Your task to perform on an android device: turn off location Image 0: 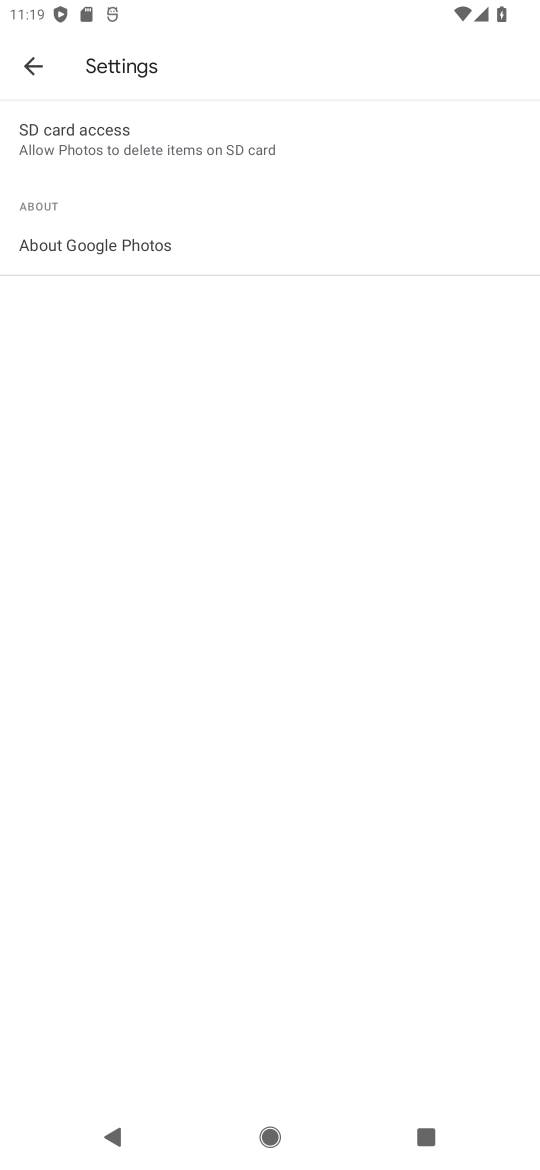
Step 0: press home button
Your task to perform on an android device: turn off location Image 1: 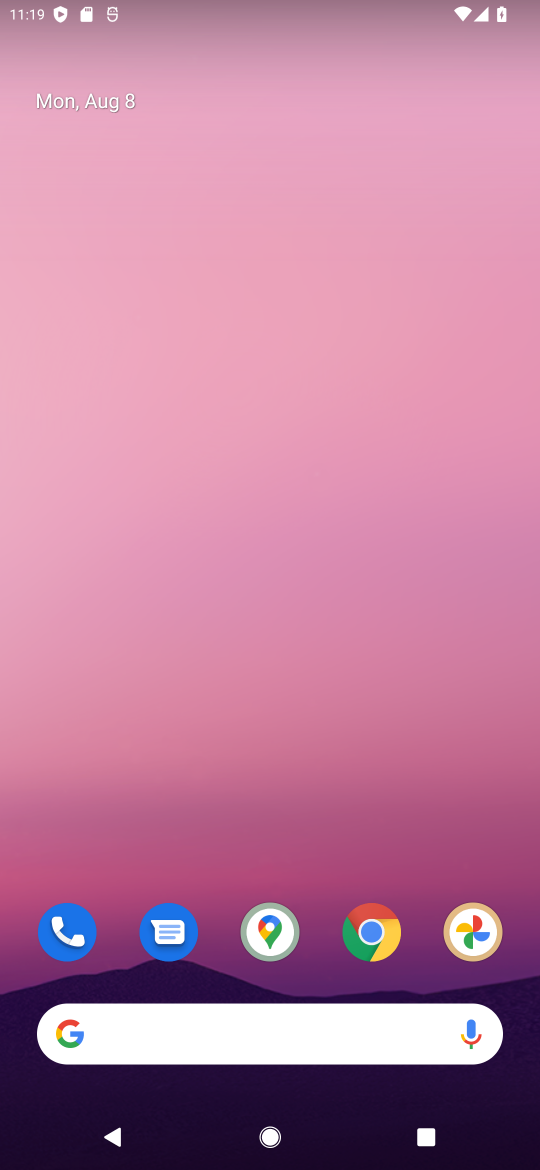
Step 1: drag from (280, 842) to (233, 121)
Your task to perform on an android device: turn off location Image 2: 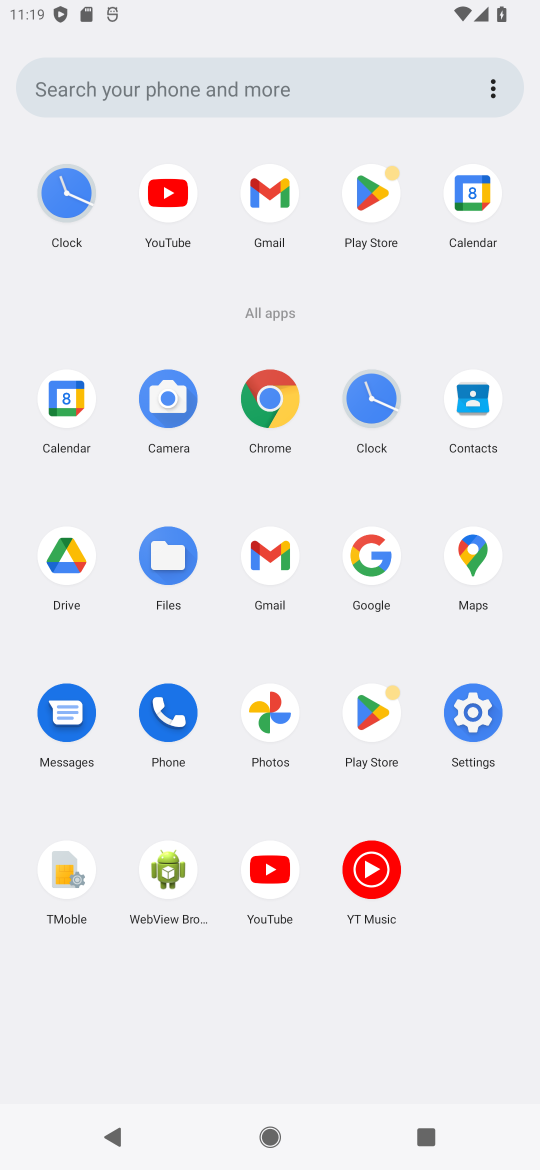
Step 2: click (482, 714)
Your task to perform on an android device: turn off location Image 3: 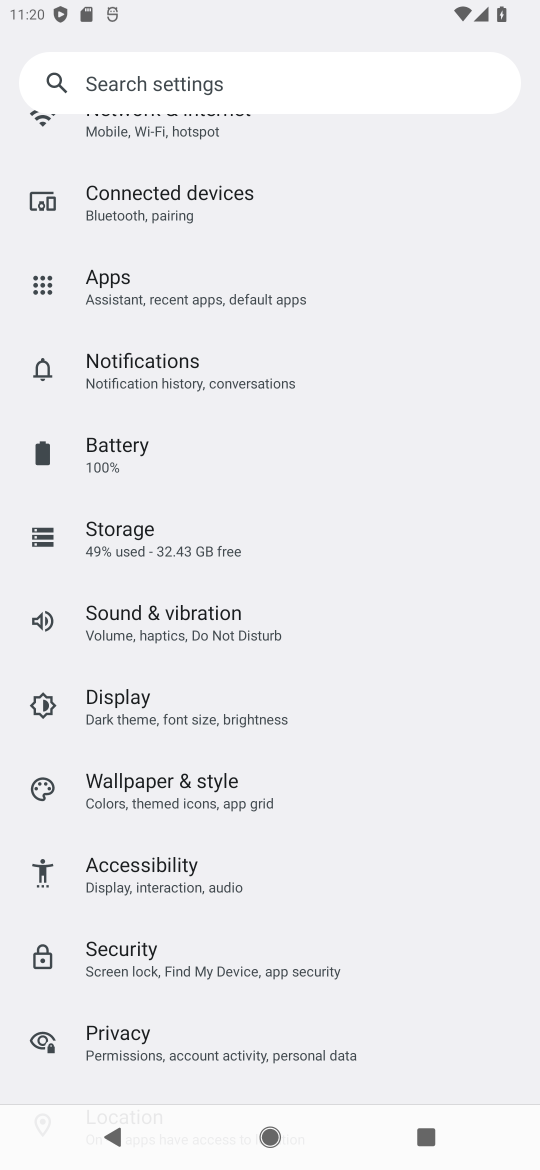
Step 3: drag from (301, 283) to (276, 634)
Your task to perform on an android device: turn off location Image 4: 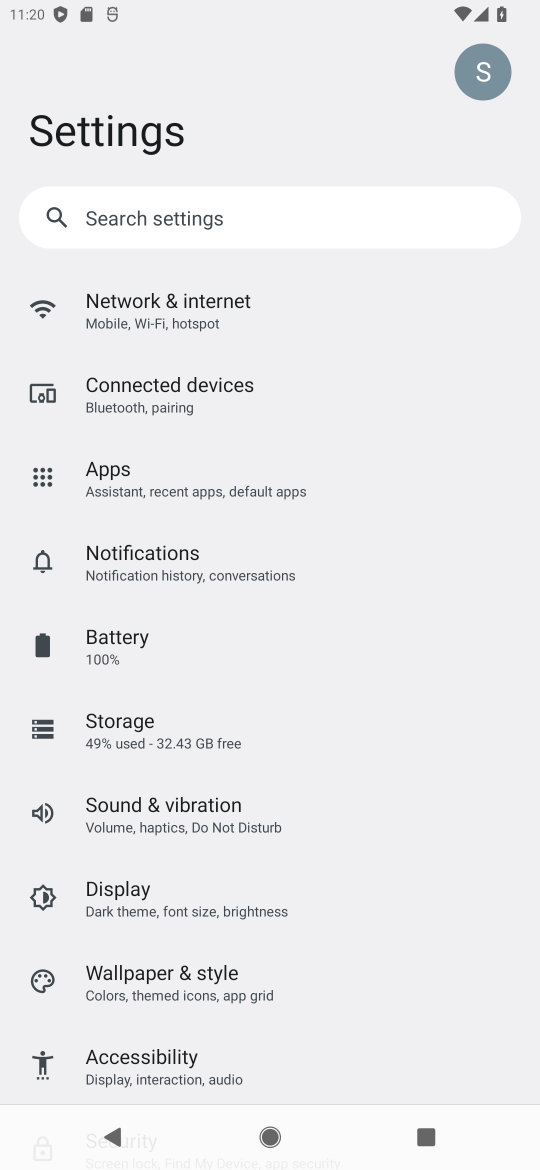
Step 4: drag from (127, 1037) to (235, 523)
Your task to perform on an android device: turn off location Image 5: 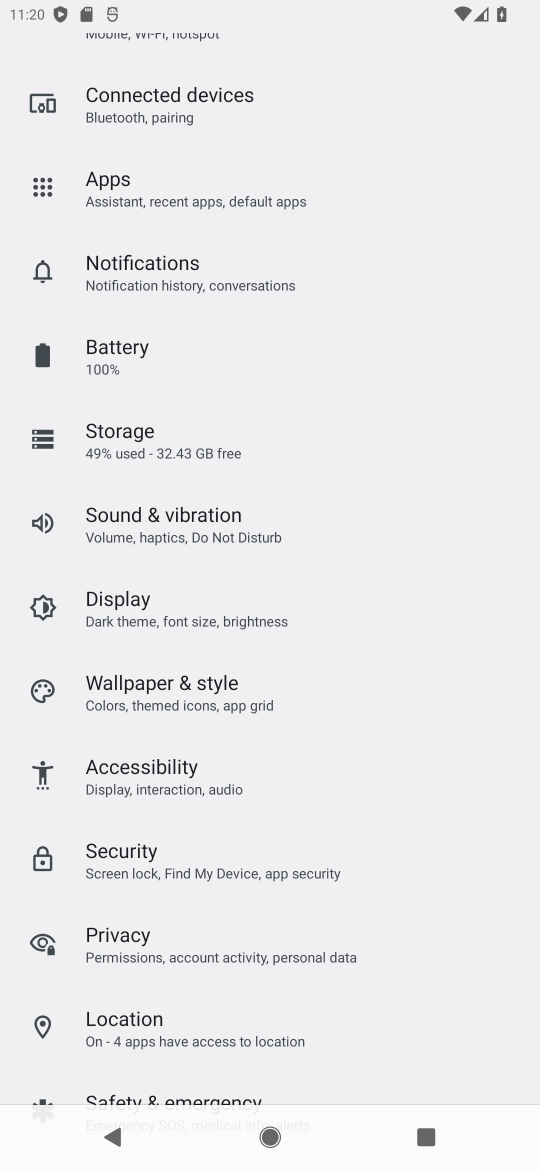
Step 5: click (111, 1044)
Your task to perform on an android device: turn off location Image 6: 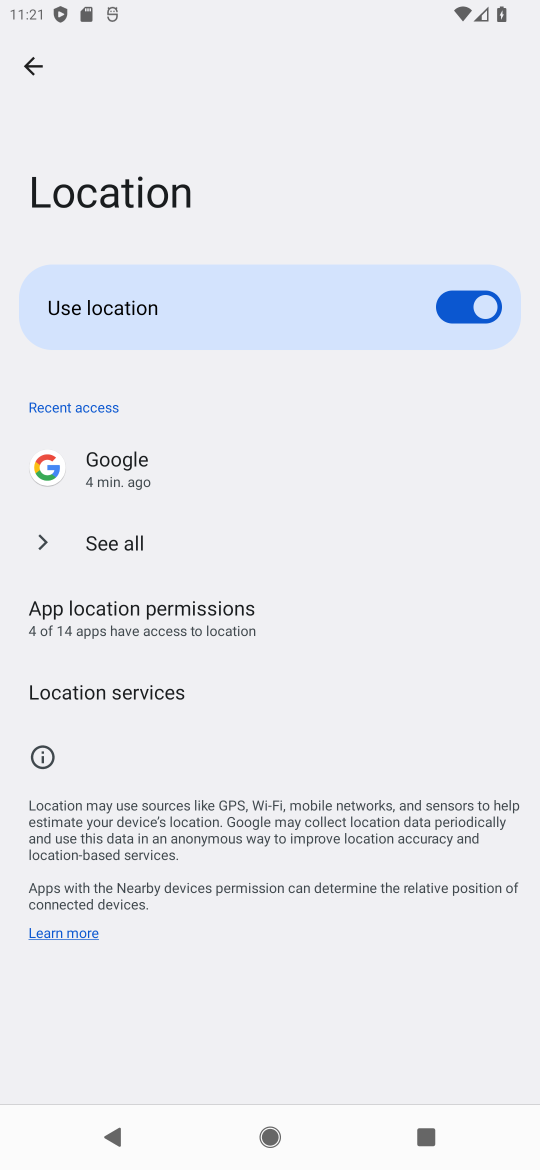
Step 6: click (442, 306)
Your task to perform on an android device: turn off location Image 7: 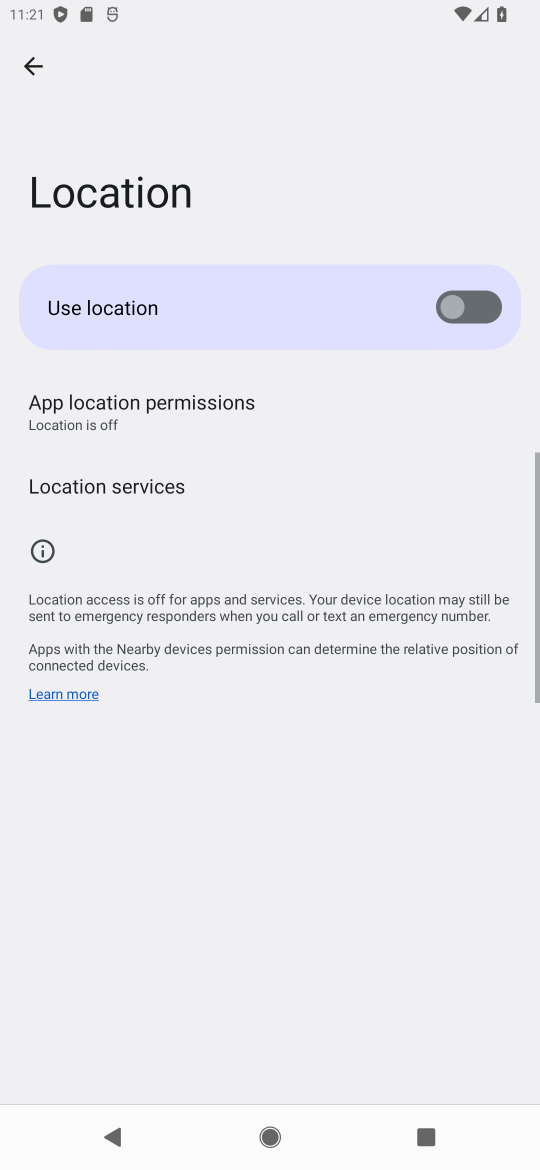
Step 7: task complete